Your task to perform on an android device: Toggle the flashlight Image 0: 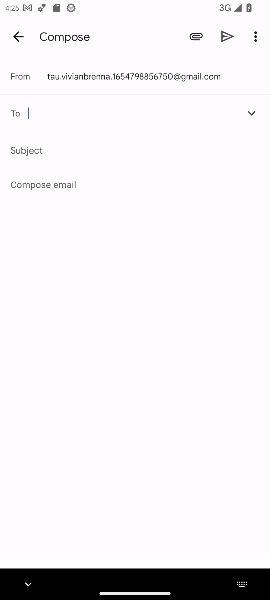
Step 0: press home button
Your task to perform on an android device: Toggle the flashlight Image 1: 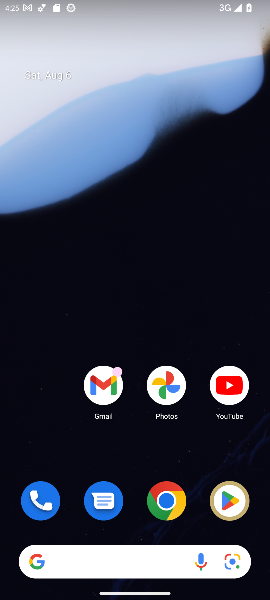
Step 1: task complete